Your task to perform on an android device: Open Google Chrome and click the shortcut for Amazon.com Image 0: 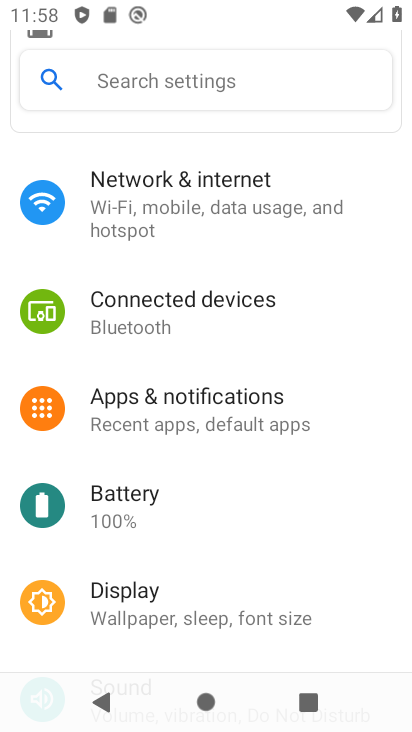
Step 0: press home button
Your task to perform on an android device: Open Google Chrome and click the shortcut for Amazon.com Image 1: 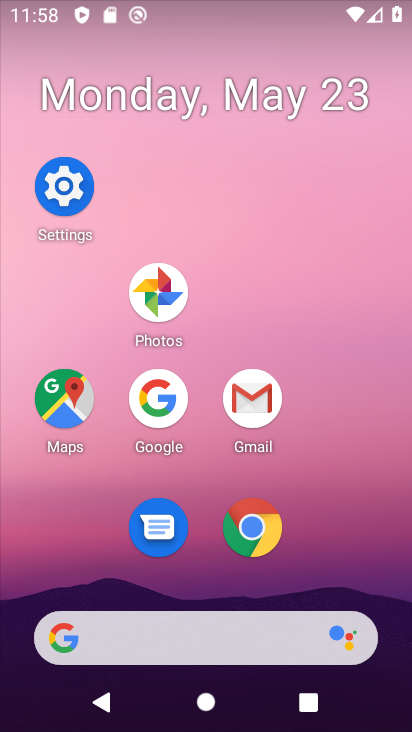
Step 1: click (264, 524)
Your task to perform on an android device: Open Google Chrome and click the shortcut for Amazon.com Image 2: 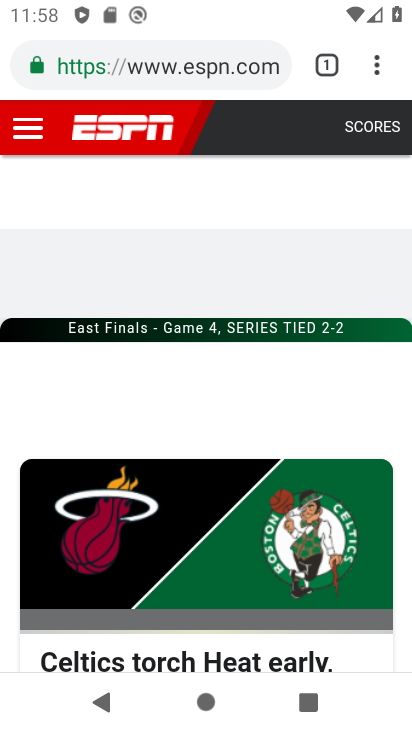
Step 2: click (338, 78)
Your task to perform on an android device: Open Google Chrome and click the shortcut for Amazon.com Image 3: 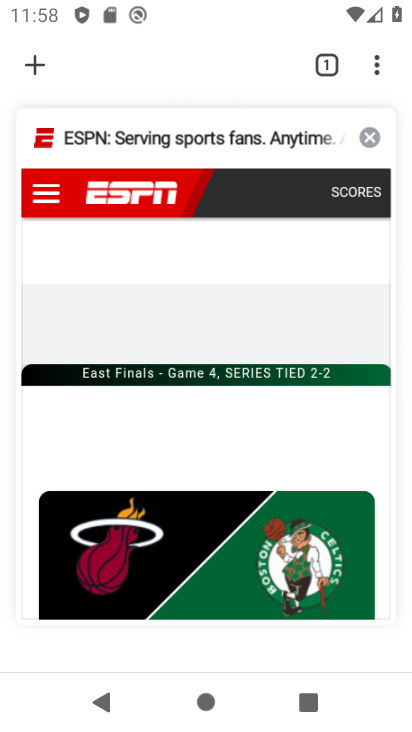
Step 3: click (36, 81)
Your task to perform on an android device: Open Google Chrome and click the shortcut for Amazon.com Image 4: 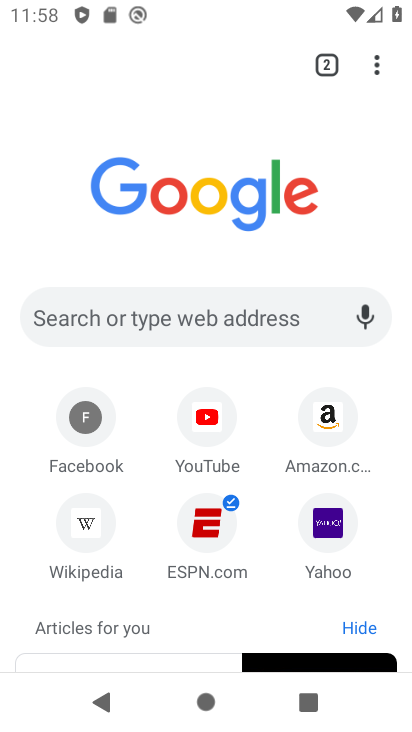
Step 4: click (320, 414)
Your task to perform on an android device: Open Google Chrome and click the shortcut for Amazon.com Image 5: 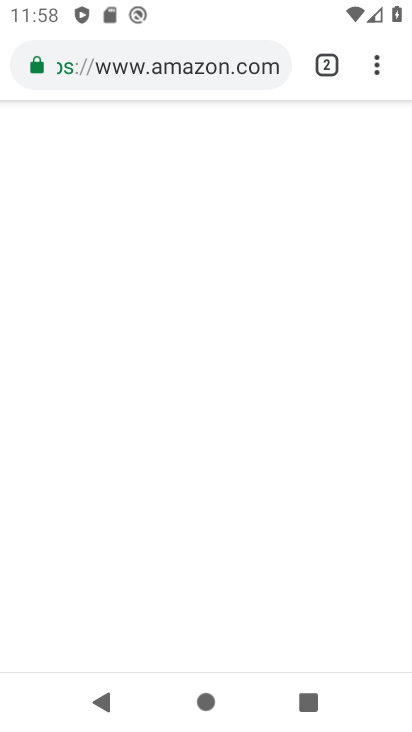
Step 5: click (386, 72)
Your task to perform on an android device: Open Google Chrome and click the shortcut for Amazon.com Image 6: 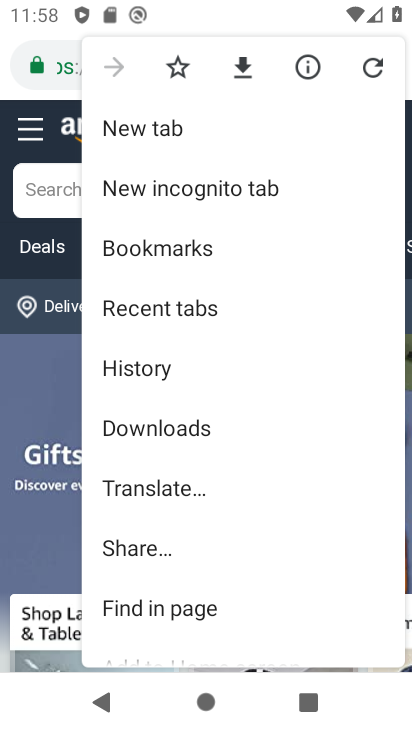
Step 6: drag from (205, 601) to (235, 215)
Your task to perform on an android device: Open Google Chrome and click the shortcut for Amazon.com Image 7: 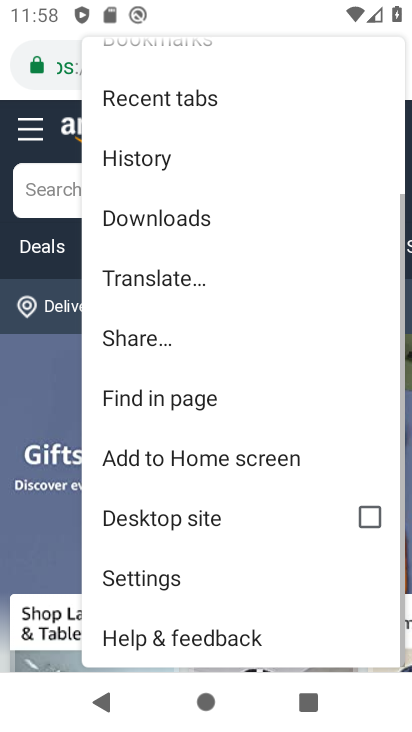
Step 7: click (253, 452)
Your task to perform on an android device: Open Google Chrome and click the shortcut for Amazon.com Image 8: 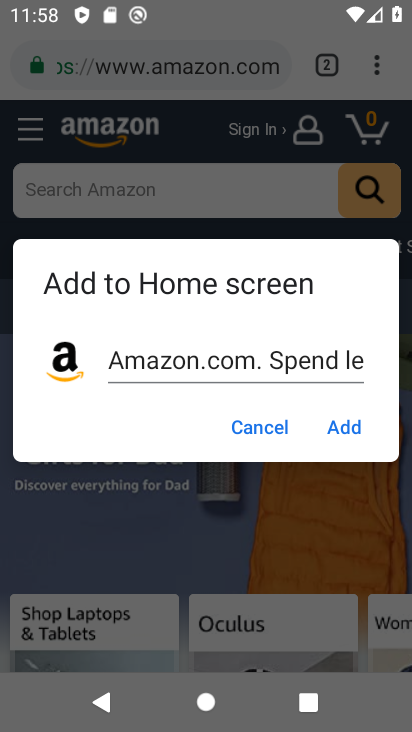
Step 8: click (333, 417)
Your task to perform on an android device: Open Google Chrome and click the shortcut for Amazon.com Image 9: 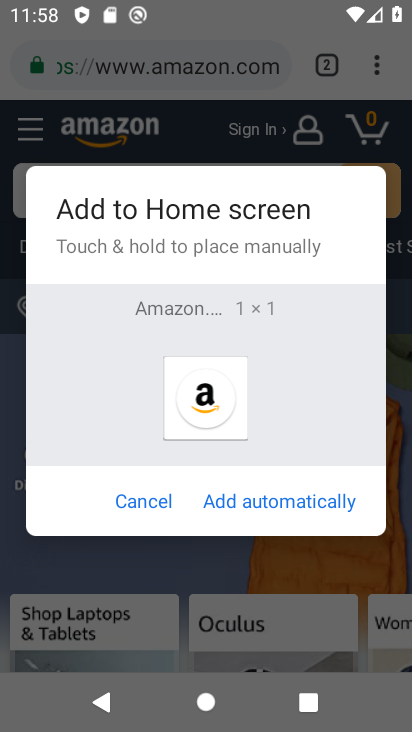
Step 9: click (312, 480)
Your task to perform on an android device: Open Google Chrome and click the shortcut for Amazon.com Image 10: 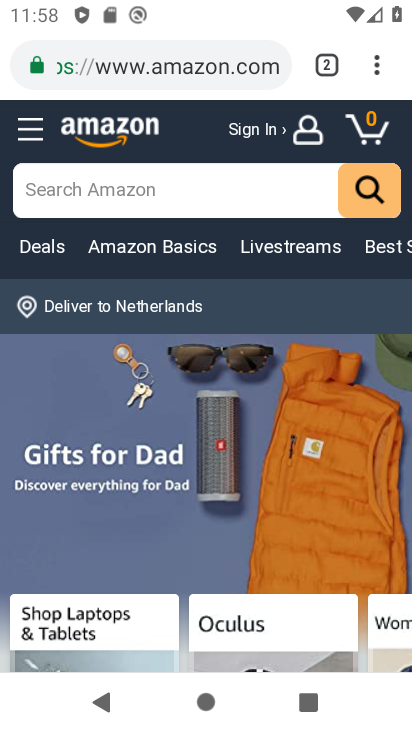
Step 10: task complete